Your task to perform on an android device: Open privacy settings Image 0: 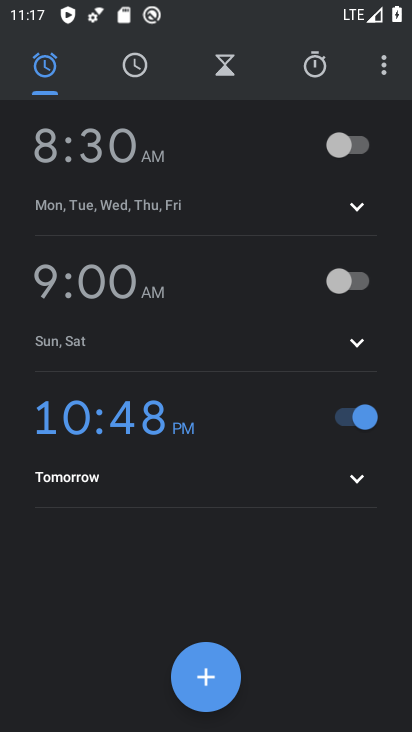
Step 0: press home button
Your task to perform on an android device: Open privacy settings Image 1: 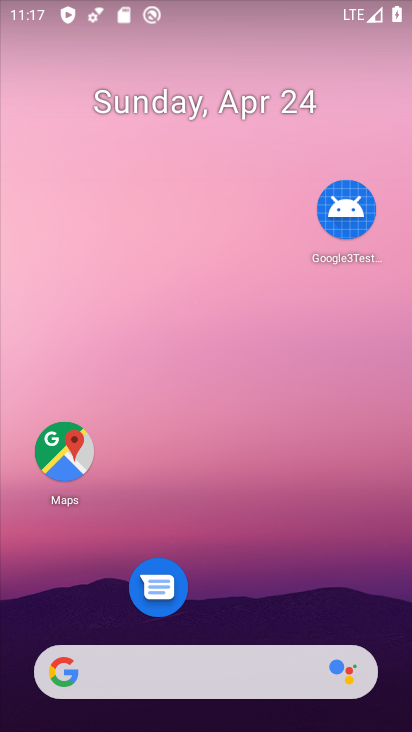
Step 1: drag from (390, 588) to (290, 87)
Your task to perform on an android device: Open privacy settings Image 2: 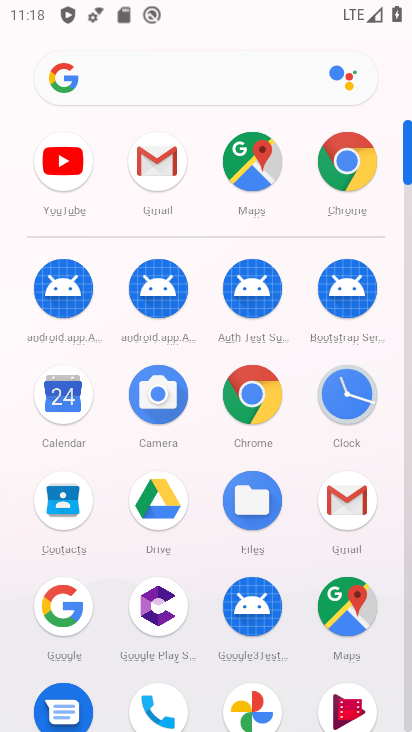
Step 2: drag from (199, 597) to (230, 248)
Your task to perform on an android device: Open privacy settings Image 3: 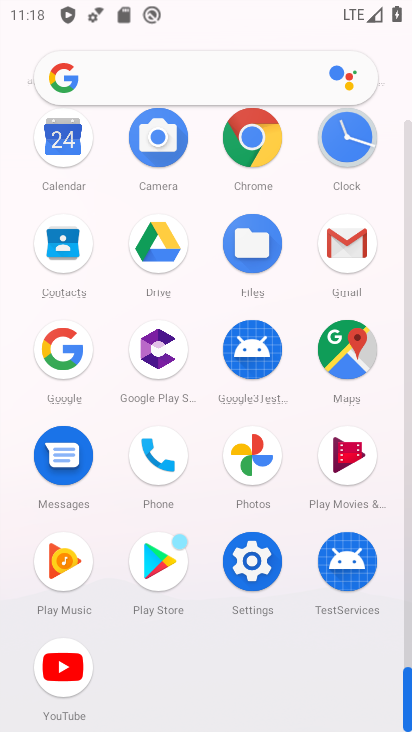
Step 3: click (240, 567)
Your task to perform on an android device: Open privacy settings Image 4: 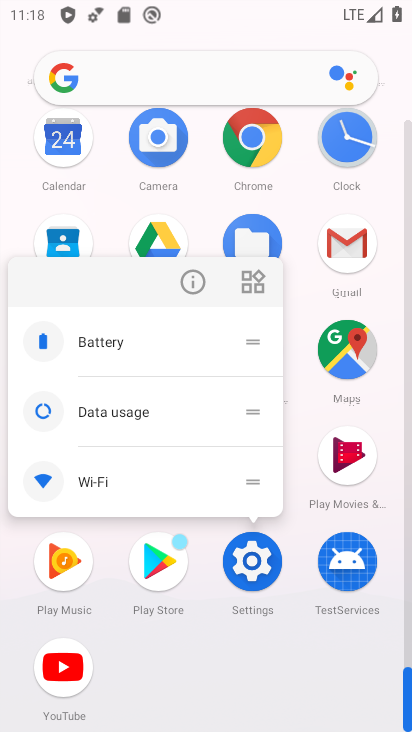
Step 4: click (240, 567)
Your task to perform on an android device: Open privacy settings Image 5: 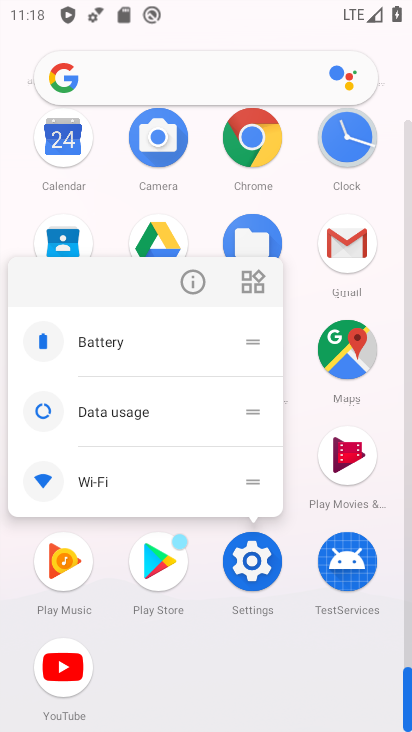
Step 5: click (255, 583)
Your task to perform on an android device: Open privacy settings Image 6: 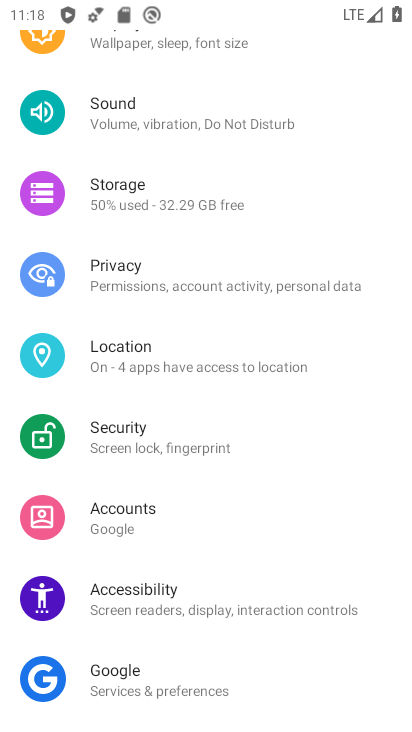
Step 6: click (173, 273)
Your task to perform on an android device: Open privacy settings Image 7: 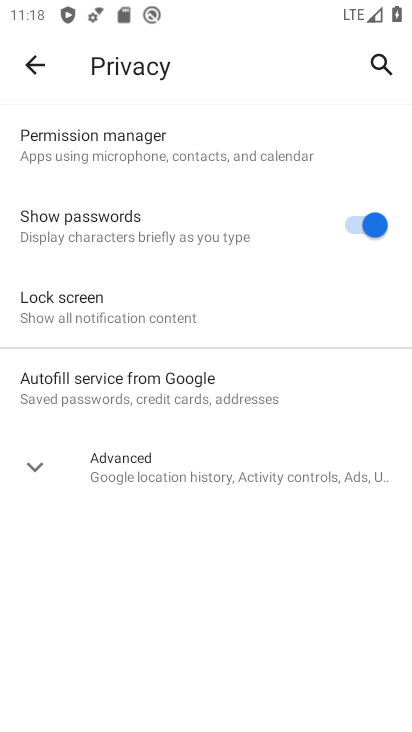
Step 7: task complete